Your task to perform on an android device: uninstall "Messenger Lite" Image 0: 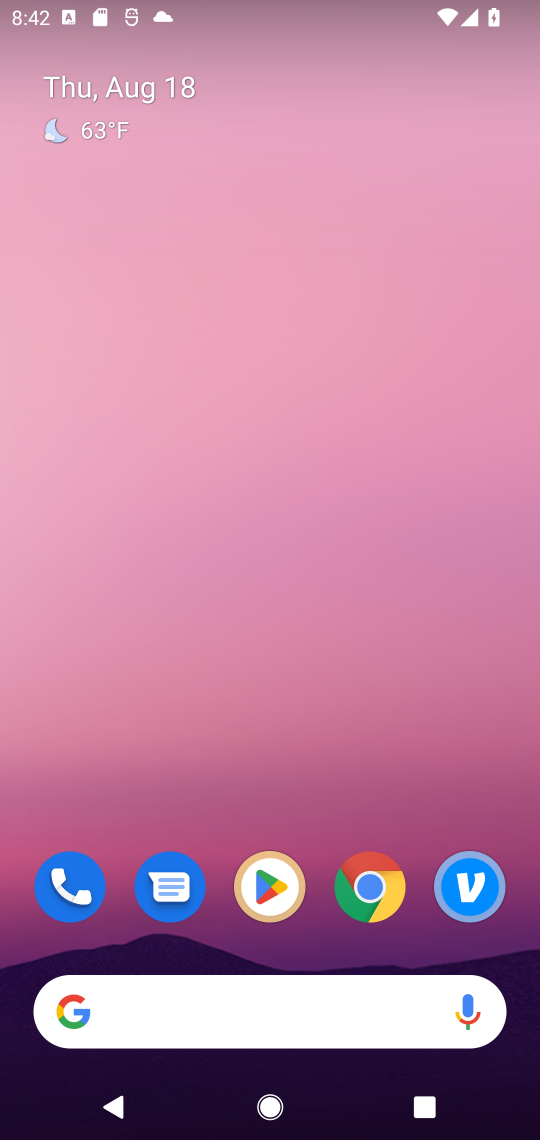
Step 0: drag from (296, 972) to (296, 13)
Your task to perform on an android device: uninstall "Messenger Lite" Image 1: 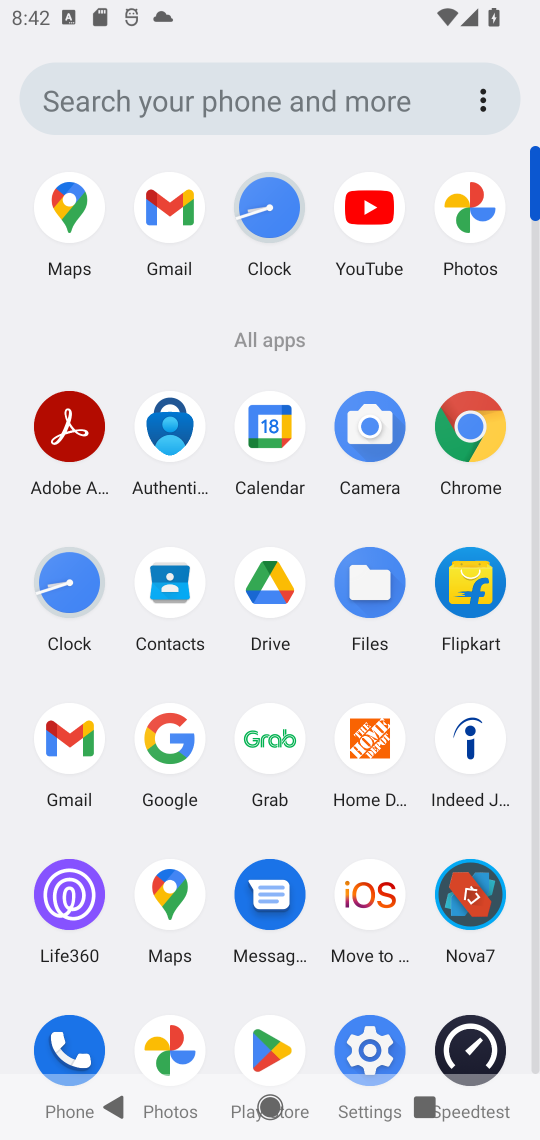
Step 1: click (267, 1043)
Your task to perform on an android device: uninstall "Messenger Lite" Image 2: 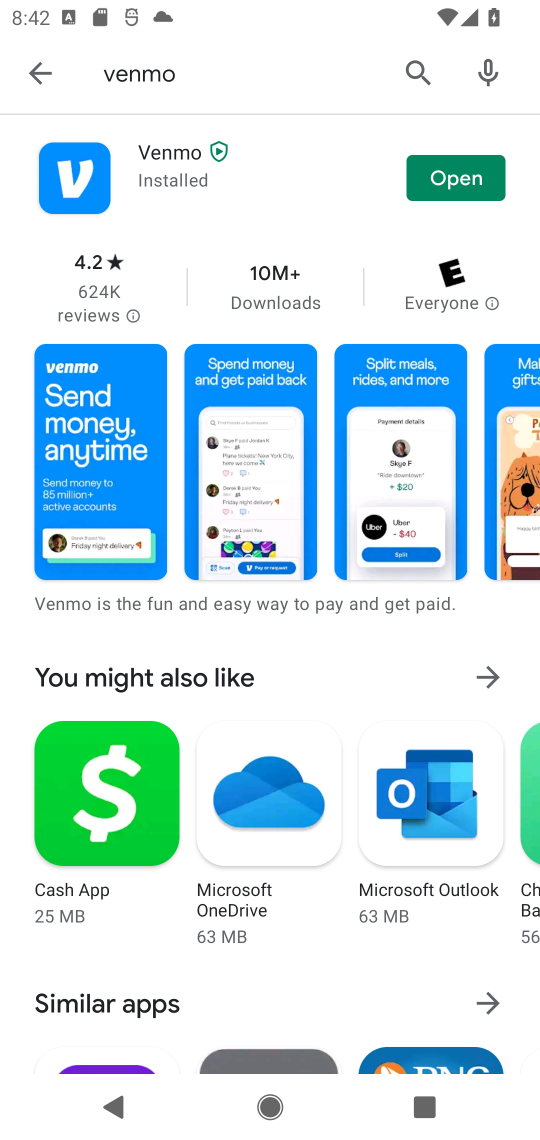
Step 2: click (414, 65)
Your task to perform on an android device: uninstall "Messenger Lite" Image 3: 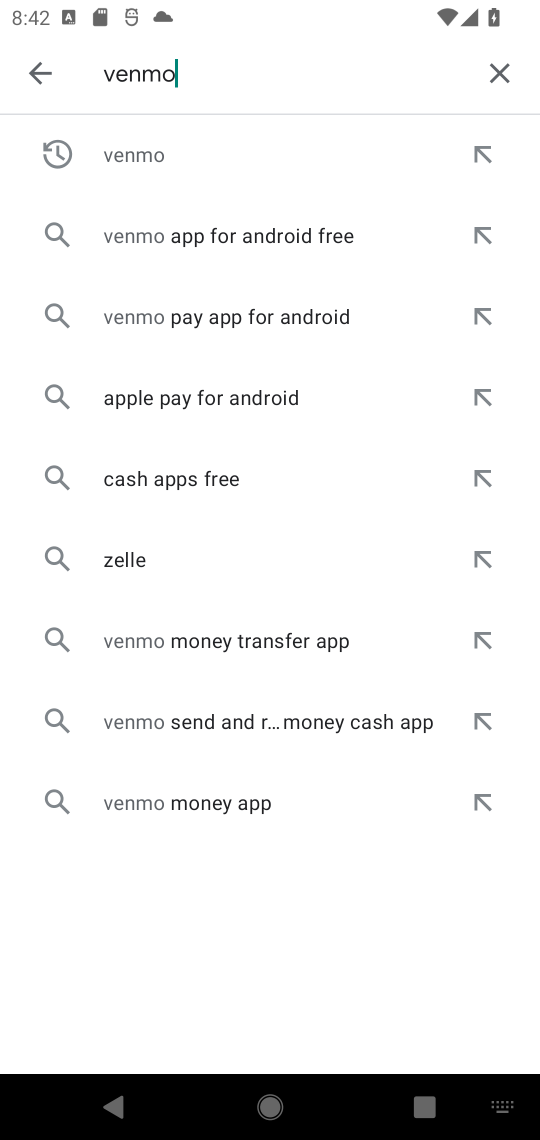
Step 3: click (499, 69)
Your task to perform on an android device: uninstall "Messenger Lite" Image 4: 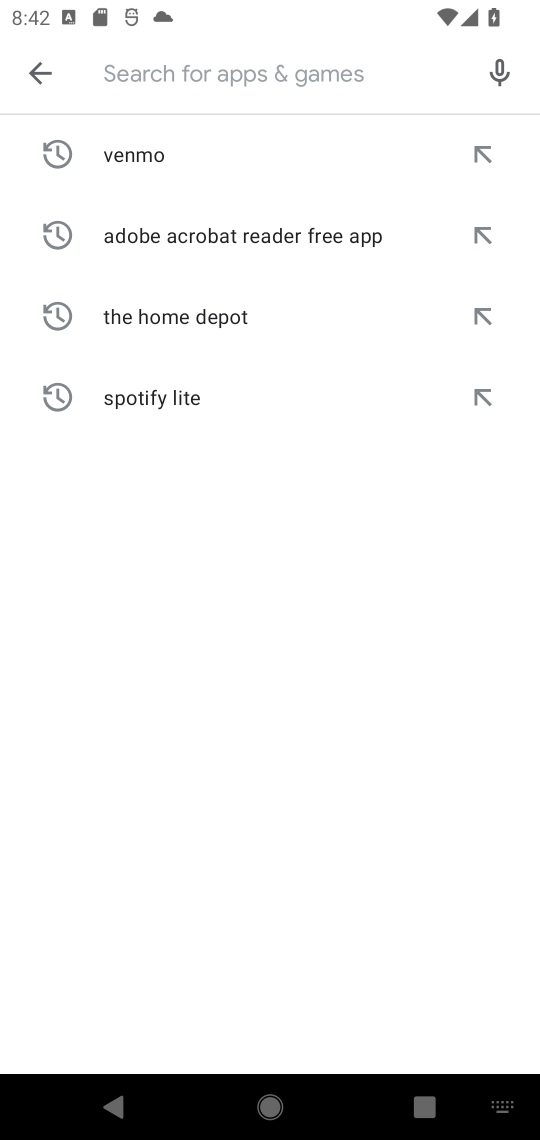
Step 4: type "Messenger Lite"
Your task to perform on an android device: uninstall "Messenger Lite" Image 5: 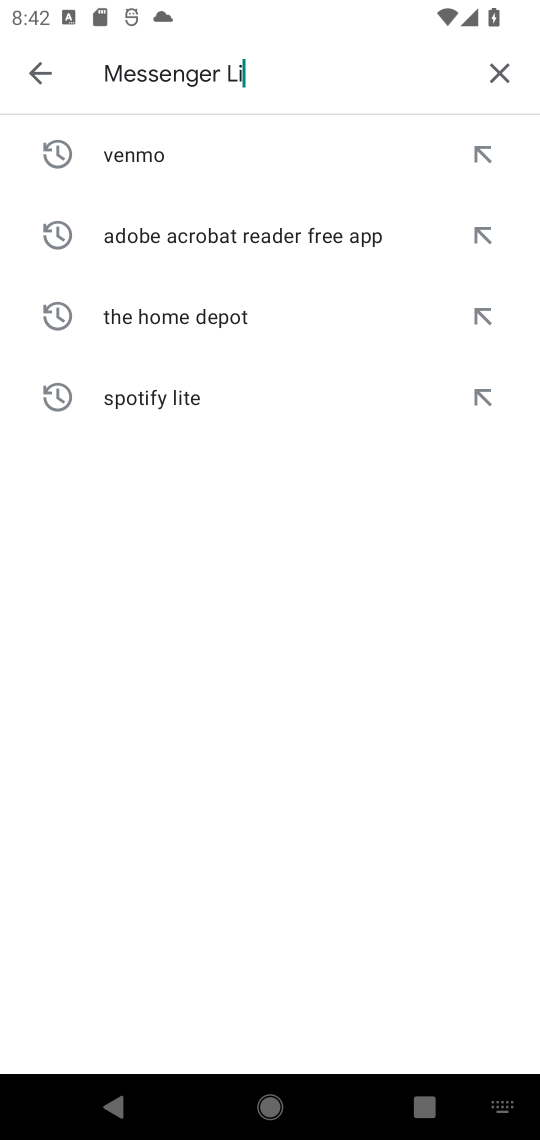
Step 5: type ""
Your task to perform on an android device: uninstall "Messenger Lite" Image 6: 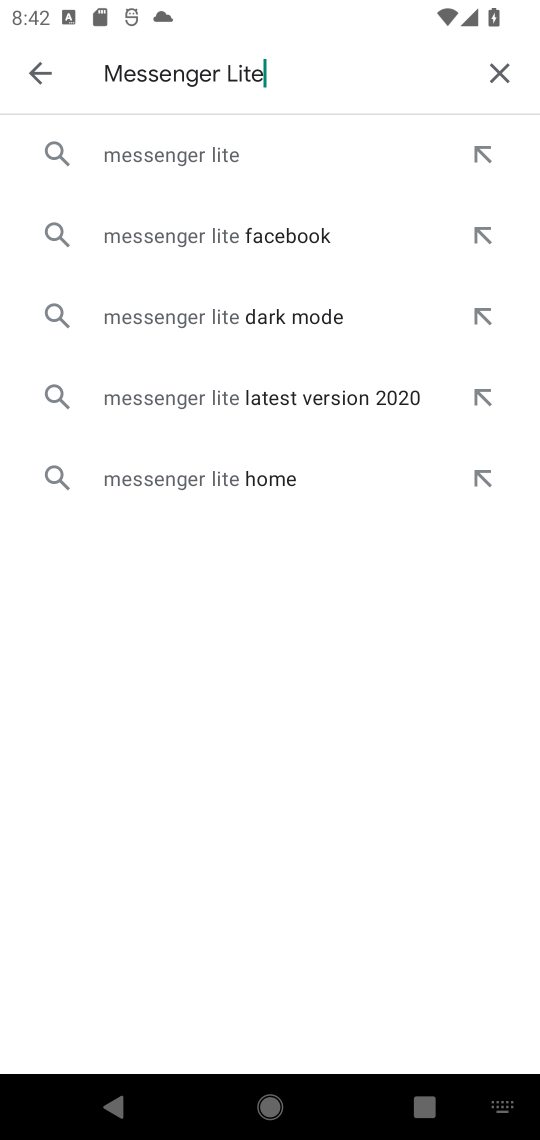
Step 6: click (180, 156)
Your task to perform on an android device: uninstall "Messenger Lite" Image 7: 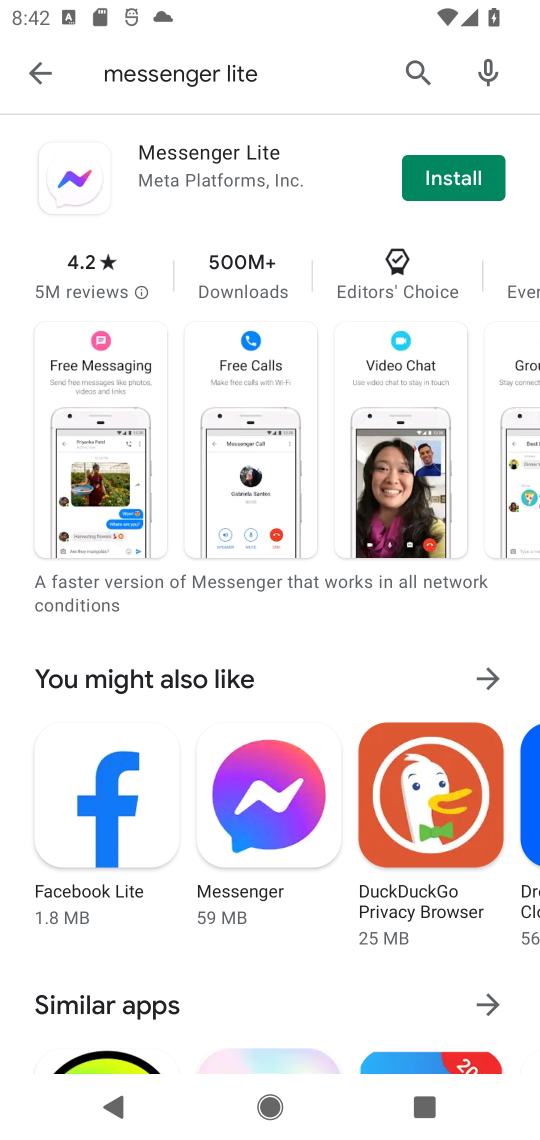
Step 7: click (197, 156)
Your task to perform on an android device: uninstall "Messenger Lite" Image 8: 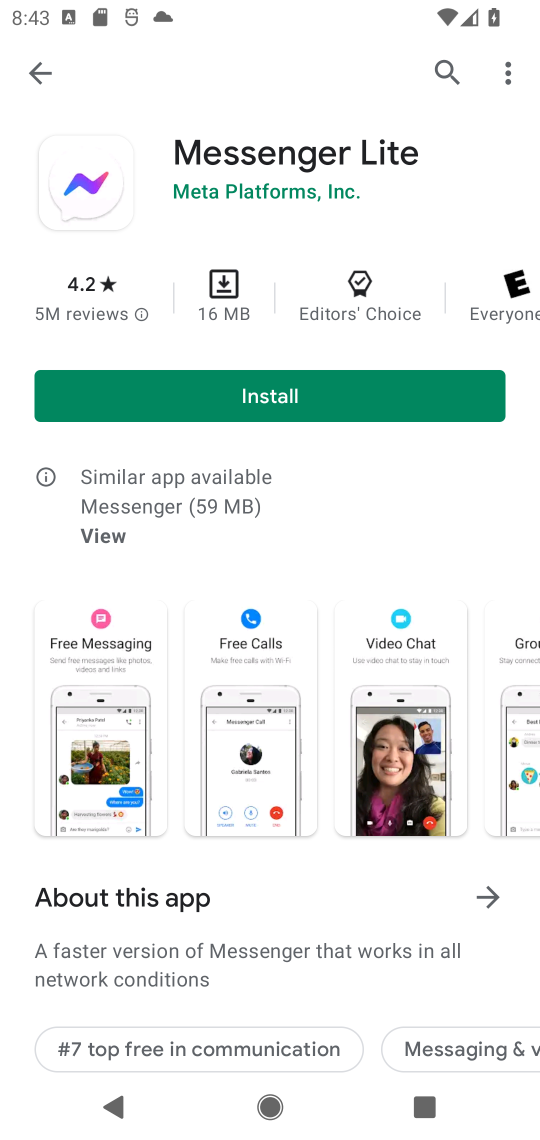
Step 8: task complete